Your task to perform on an android device: Open internet settings Image 0: 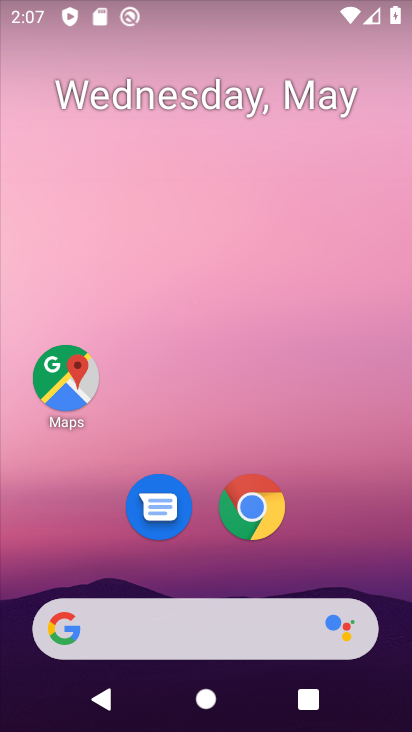
Step 0: drag from (357, 465) to (297, 159)
Your task to perform on an android device: Open internet settings Image 1: 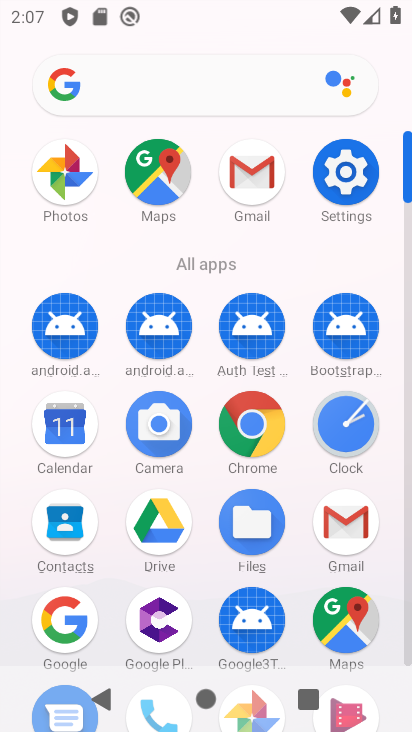
Step 1: click (358, 192)
Your task to perform on an android device: Open internet settings Image 2: 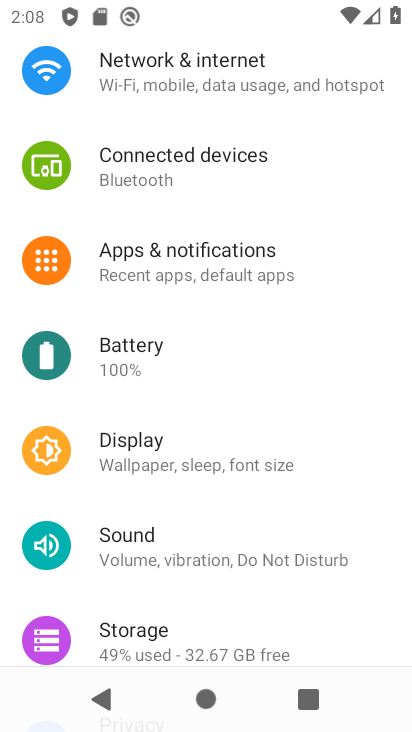
Step 2: click (243, 81)
Your task to perform on an android device: Open internet settings Image 3: 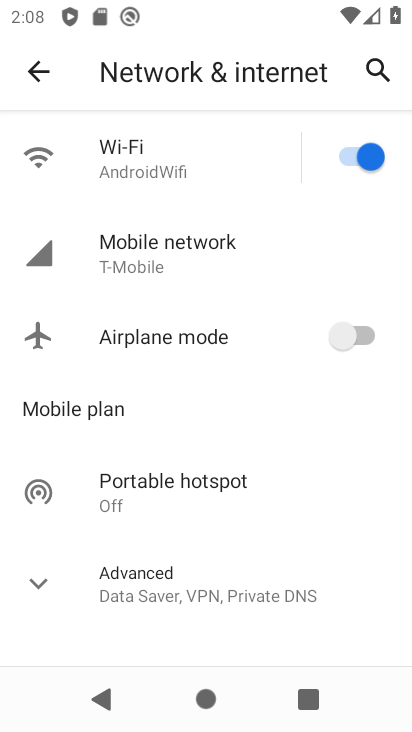
Step 3: task complete